Your task to perform on an android device: change text size in settings app Image 0: 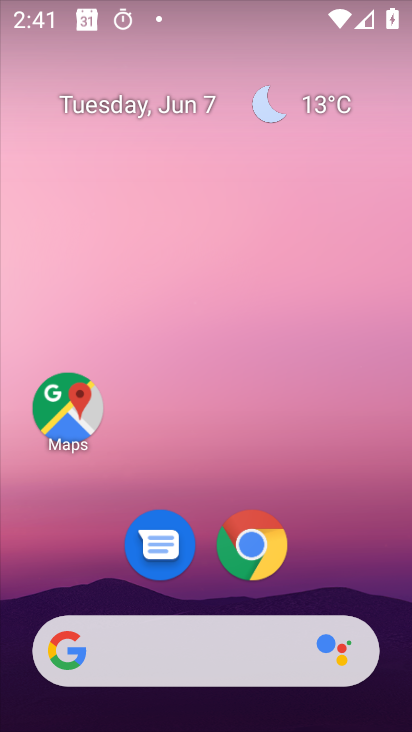
Step 0: drag from (344, 519) to (256, 10)
Your task to perform on an android device: change text size in settings app Image 1: 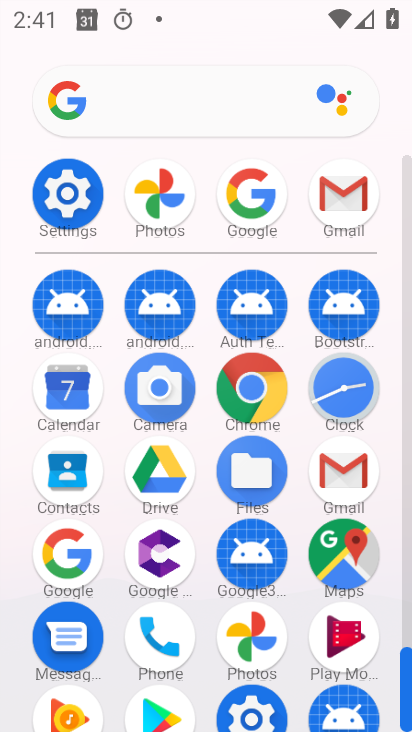
Step 1: click (60, 213)
Your task to perform on an android device: change text size in settings app Image 2: 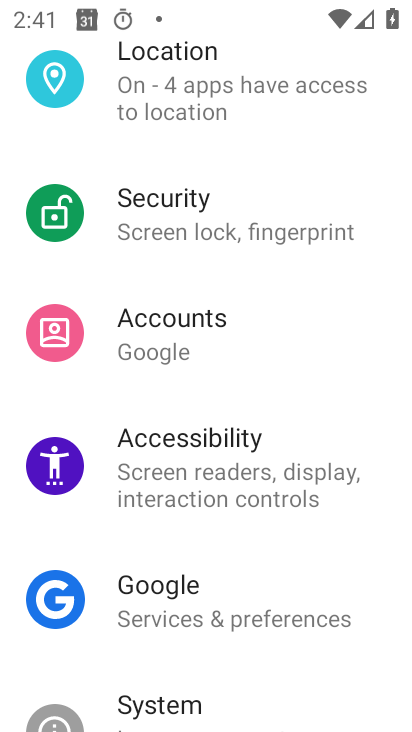
Step 2: drag from (248, 483) to (221, 108)
Your task to perform on an android device: change text size in settings app Image 3: 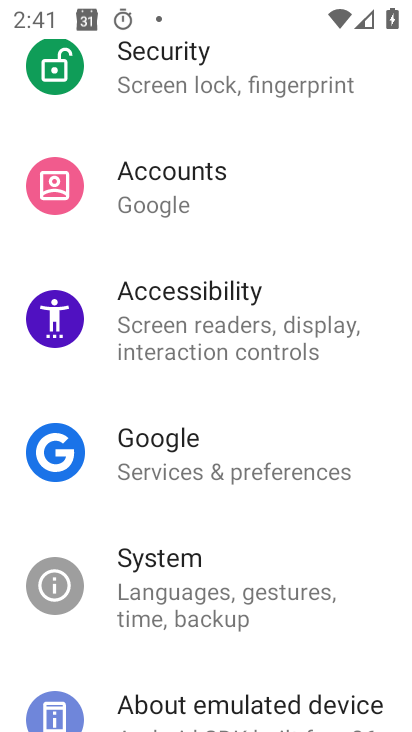
Step 3: drag from (242, 155) to (252, 721)
Your task to perform on an android device: change text size in settings app Image 4: 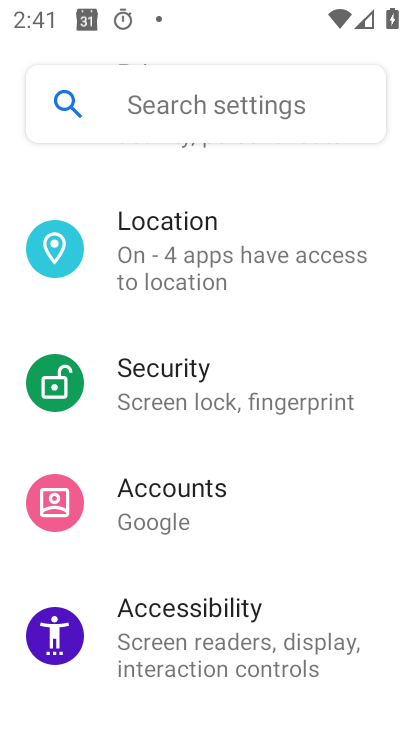
Step 4: drag from (246, 258) to (249, 722)
Your task to perform on an android device: change text size in settings app Image 5: 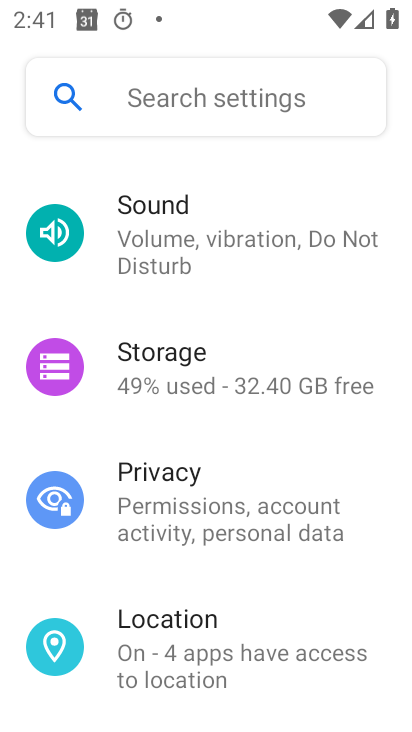
Step 5: drag from (235, 339) to (245, 711)
Your task to perform on an android device: change text size in settings app Image 6: 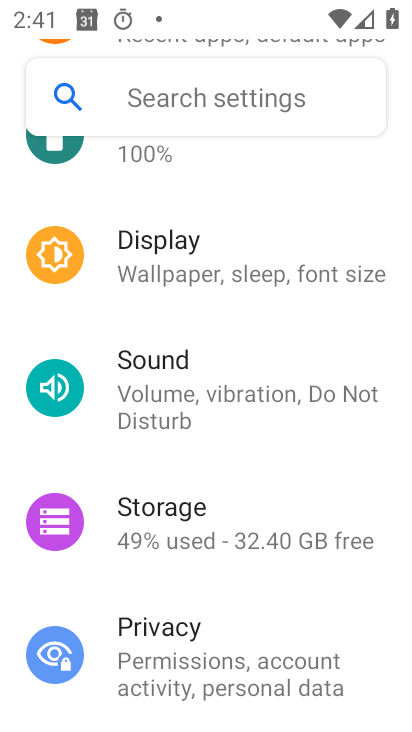
Step 6: click (180, 269)
Your task to perform on an android device: change text size in settings app Image 7: 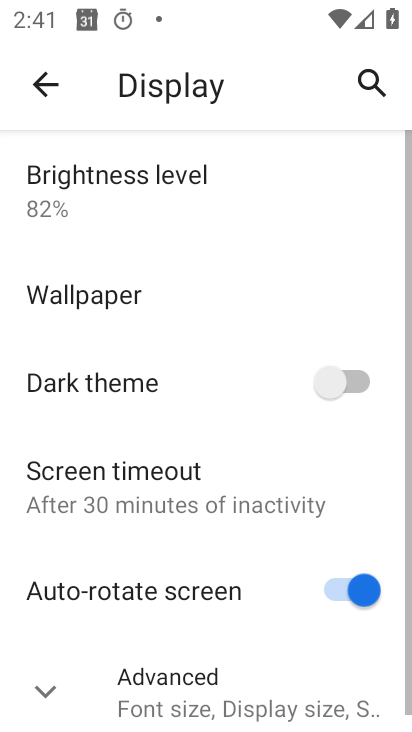
Step 7: click (176, 689)
Your task to perform on an android device: change text size in settings app Image 8: 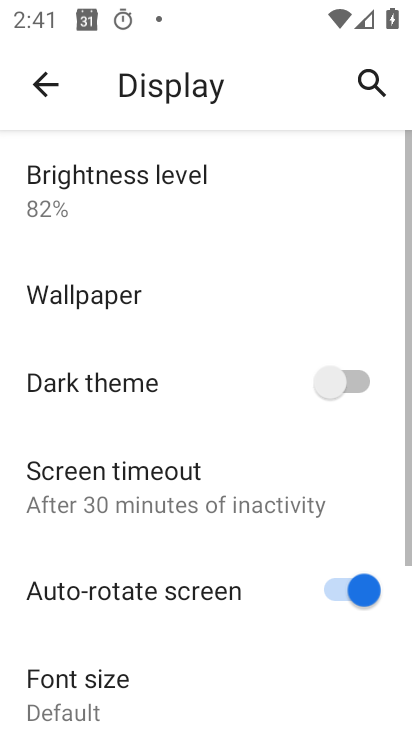
Step 8: click (150, 696)
Your task to perform on an android device: change text size in settings app Image 9: 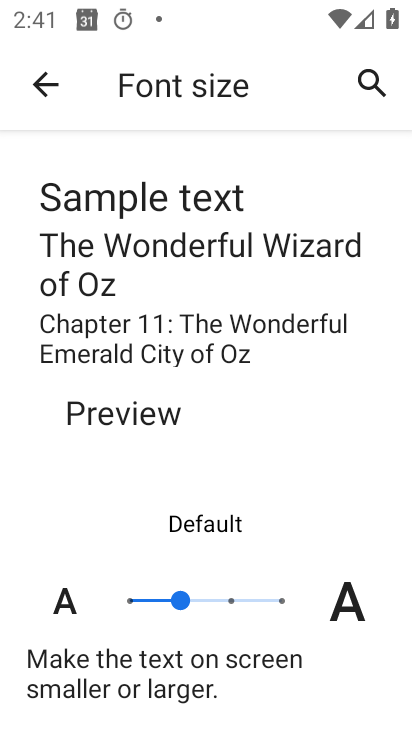
Step 9: click (130, 602)
Your task to perform on an android device: change text size in settings app Image 10: 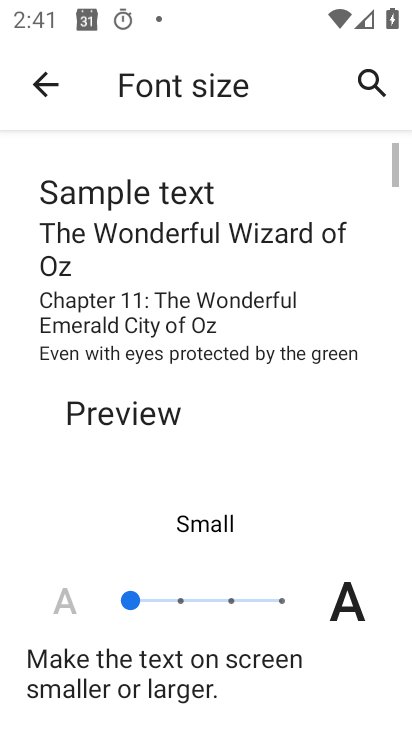
Step 10: task complete